Your task to perform on an android device: turn on notifications settings in the gmail app Image 0: 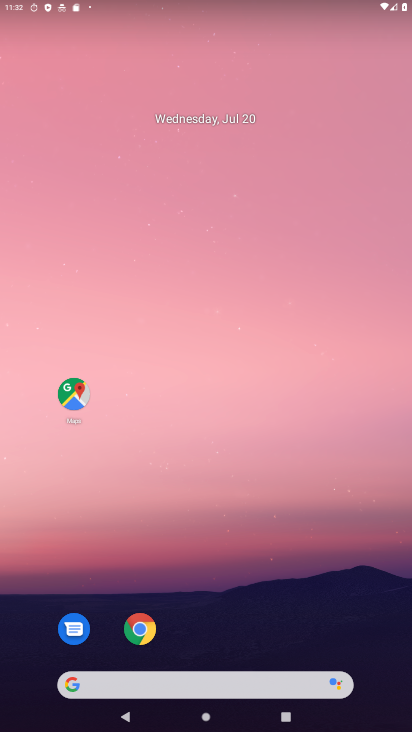
Step 0: drag from (246, 686) to (307, 10)
Your task to perform on an android device: turn on notifications settings in the gmail app Image 1: 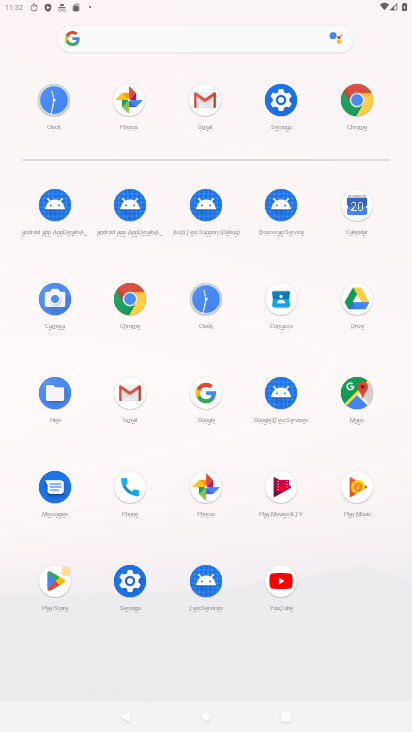
Step 1: click (140, 391)
Your task to perform on an android device: turn on notifications settings in the gmail app Image 2: 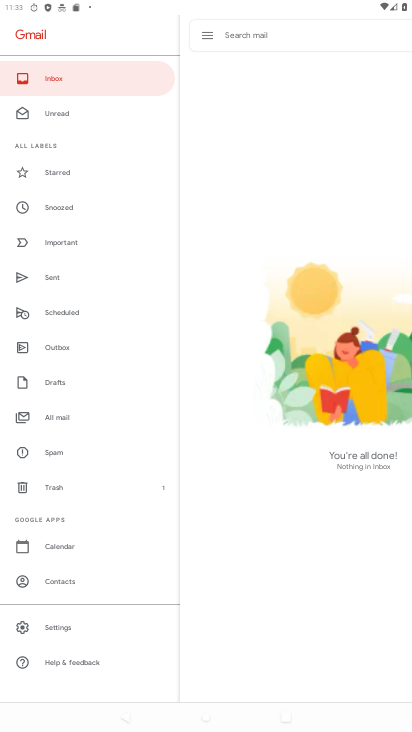
Step 2: click (53, 623)
Your task to perform on an android device: turn on notifications settings in the gmail app Image 3: 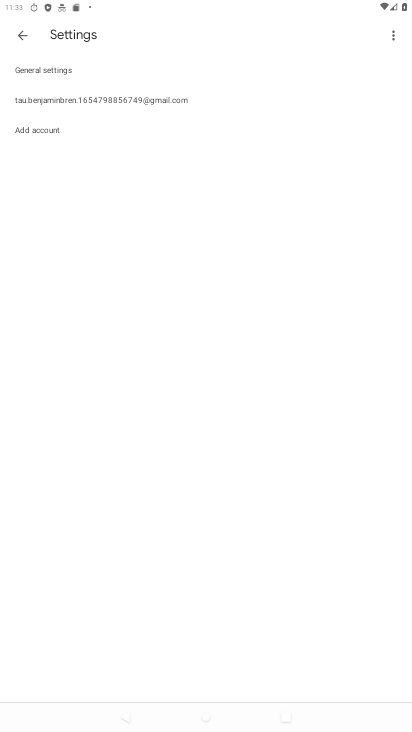
Step 3: click (136, 100)
Your task to perform on an android device: turn on notifications settings in the gmail app Image 4: 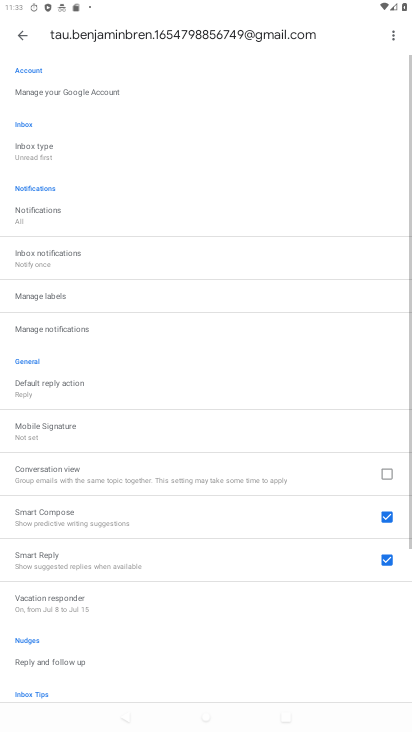
Step 4: click (76, 332)
Your task to perform on an android device: turn on notifications settings in the gmail app Image 5: 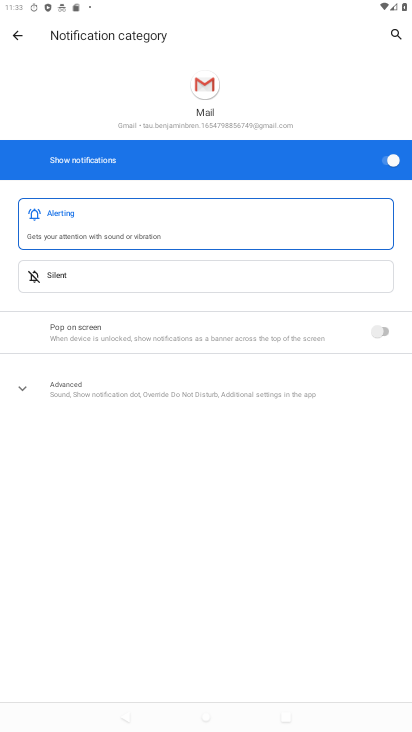
Step 5: task complete